Your task to perform on an android device: change keyboard looks Image 0: 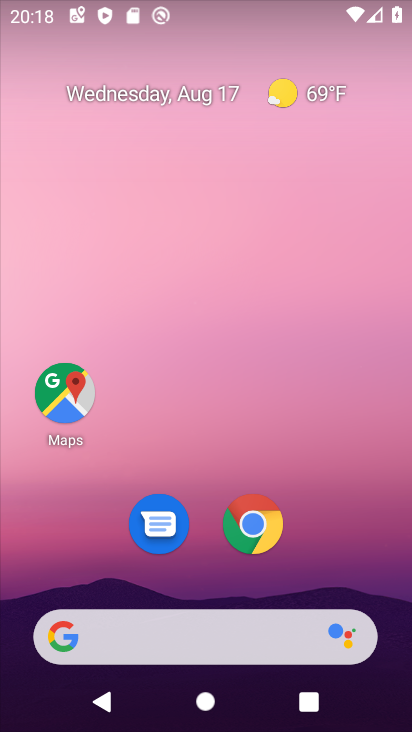
Step 0: drag from (343, 522) to (383, 36)
Your task to perform on an android device: change keyboard looks Image 1: 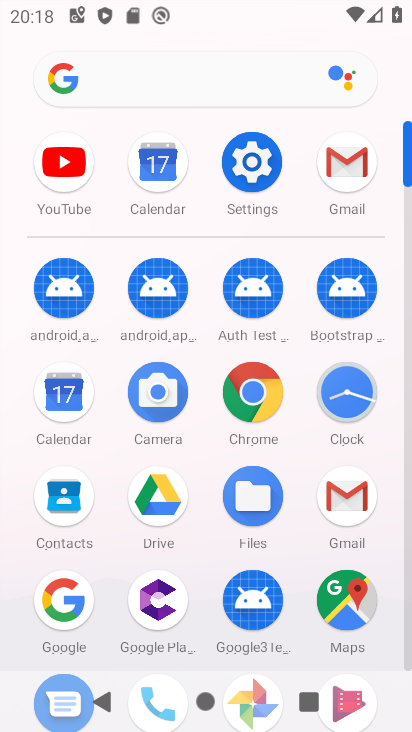
Step 1: click (257, 157)
Your task to perform on an android device: change keyboard looks Image 2: 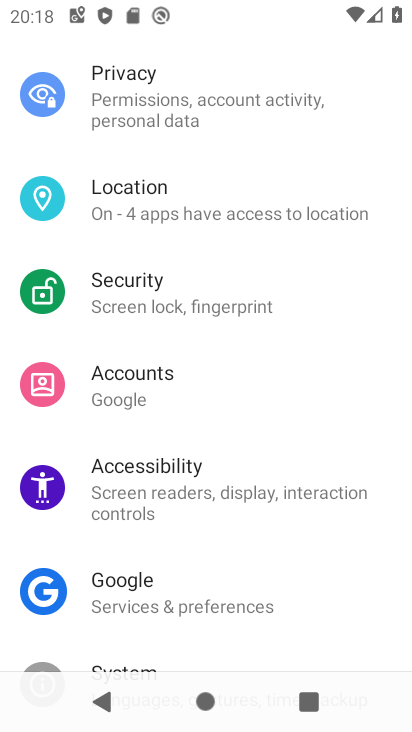
Step 2: drag from (243, 531) to (248, 196)
Your task to perform on an android device: change keyboard looks Image 3: 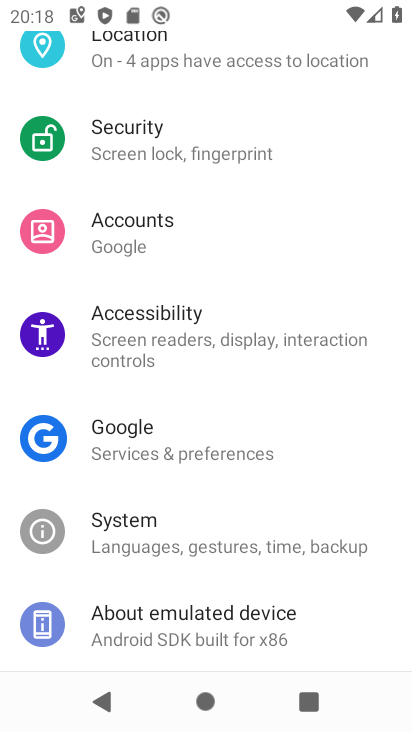
Step 3: click (219, 529)
Your task to perform on an android device: change keyboard looks Image 4: 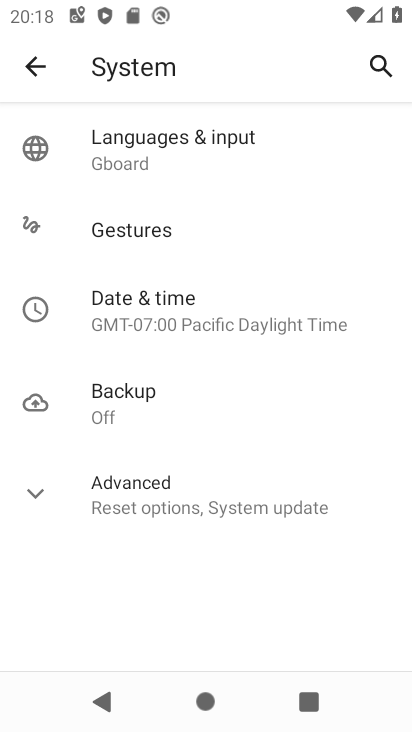
Step 4: click (228, 145)
Your task to perform on an android device: change keyboard looks Image 5: 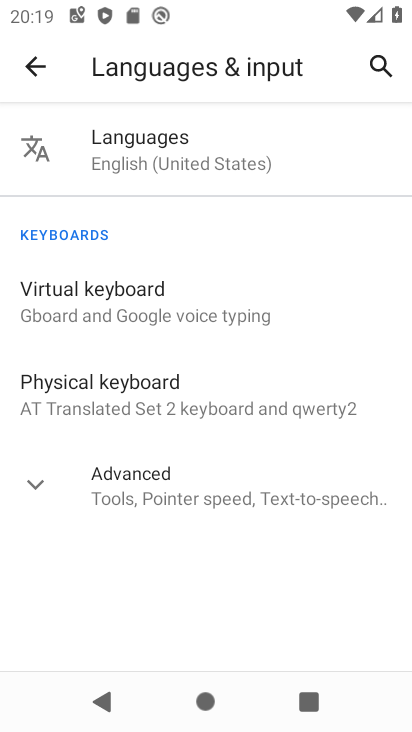
Step 5: click (198, 310)
Your task to perform on an android device: change keyboard looks Image 6: 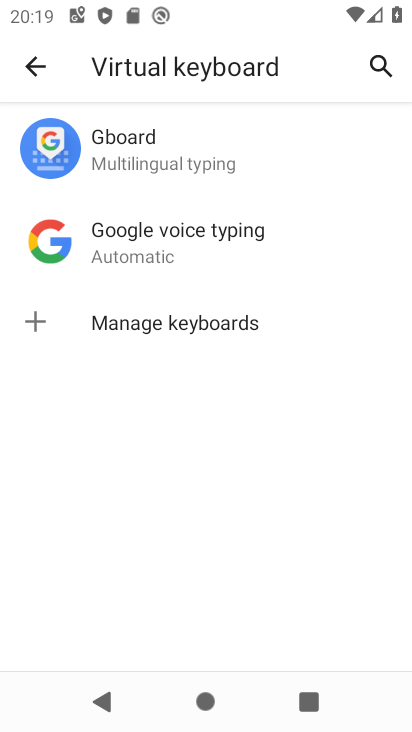
Step 6: click (189, 156)
Your task to perform on an android device: change keyboard looks Image 7: 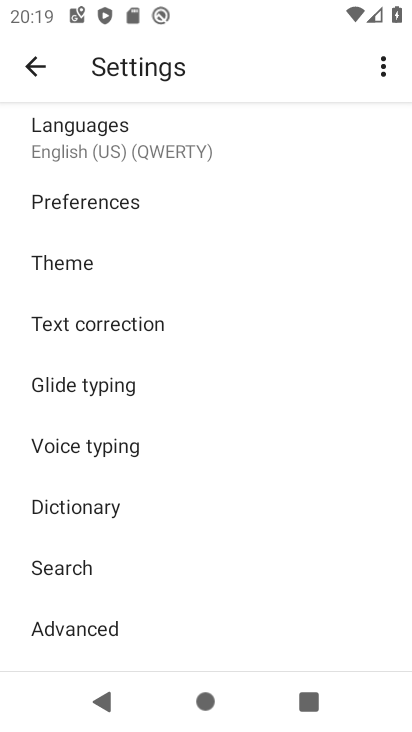
Step 7: click (104, 268)
Your task to perform on an android device: change keyboard looks Image 8: 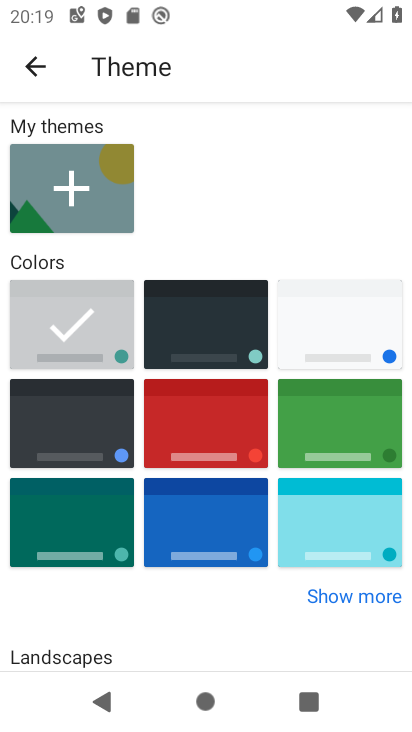
Step 8: click (197, 423)
Your task to perform on an android device: change keyboard looks Image 9: 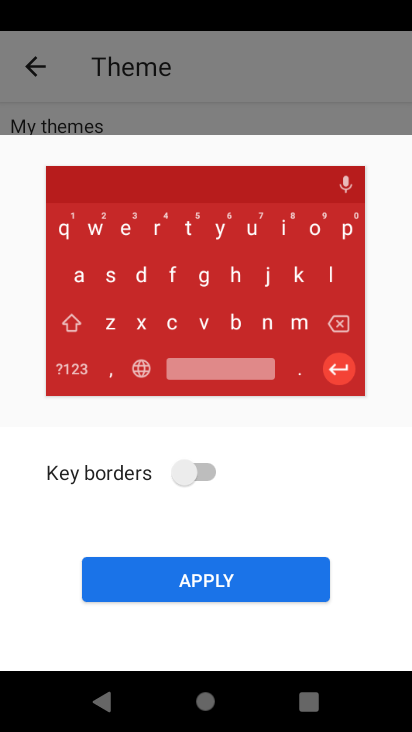
Step 9: click (200, 471)
Your task to perform on an android device: change keyboard looks Image 10: 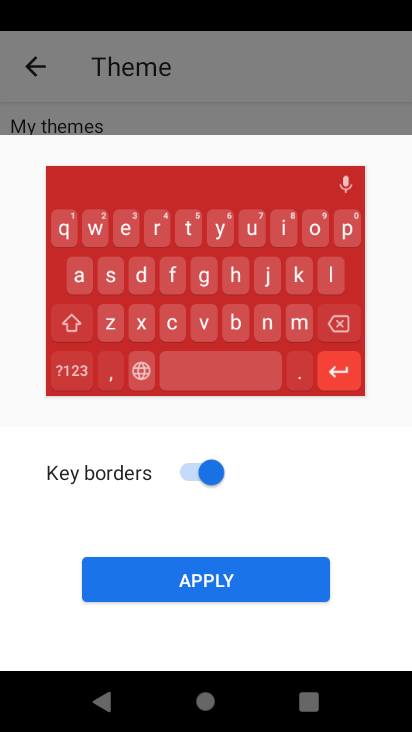
Step 10: click (239, 577)
Your task to perform on an android device: change keyboard looks Image 11: 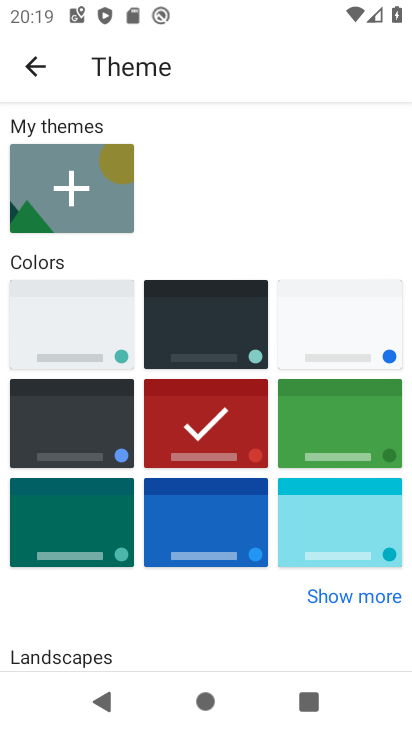
Step 11: task complete